Your task to perform on an android device: turn pop-ups on in chrome Image 0: 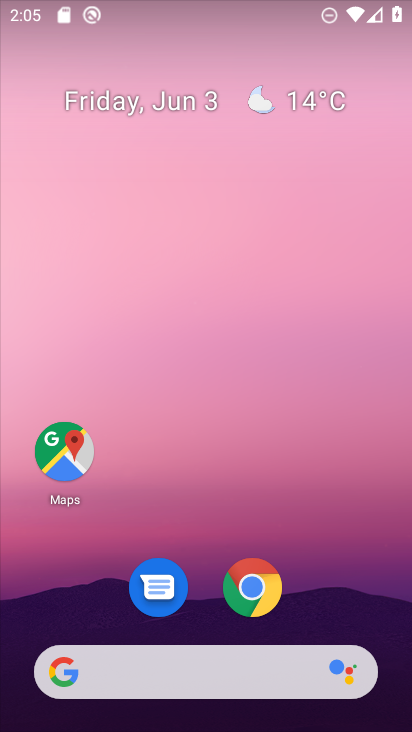
Step 0: click (247, 595)
Your task to perform on an android device: turn pop-ups on in chrome Image 1: 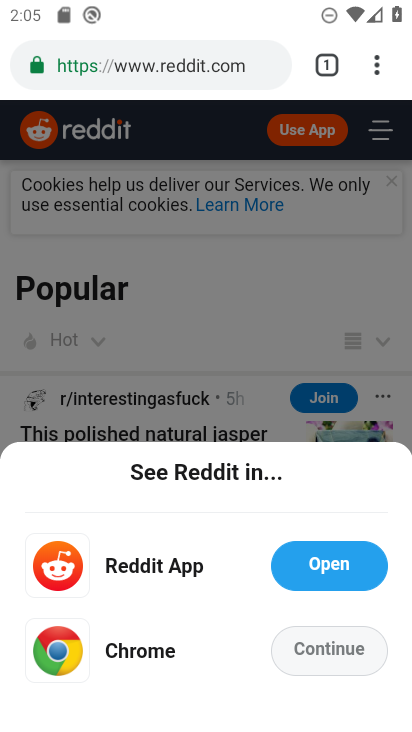
Step 1: click (386, 71)
Your task to perform on an android device: turn pop-ups on in chrome Image 2: 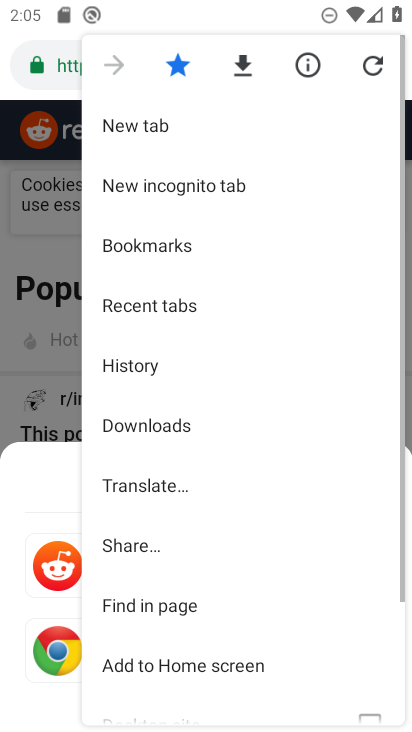
Step 2: drag from (250, 645) to (319, 103)
Your task to perform on an android device: turn pop-ups on in chrome Image 3: 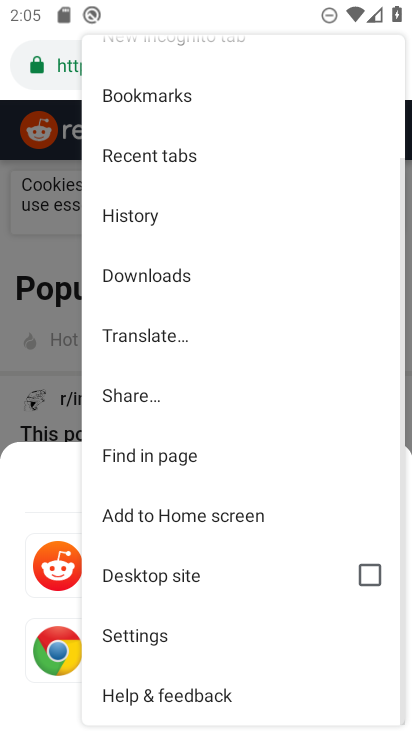
Step 3: click (211, 630)
Your task to perform on an android device: turn pop-ups on in chrome Image 4: 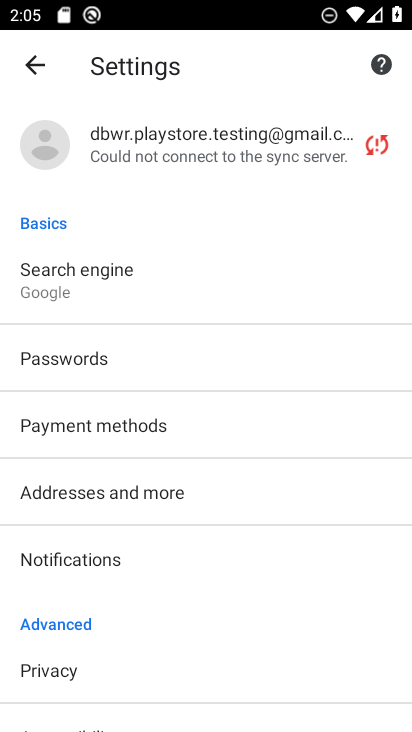
Step 4: drag from (154, 664) to (188, 182)
Your task to perform on an android device: turn pop-ups on in chrome Image 5: 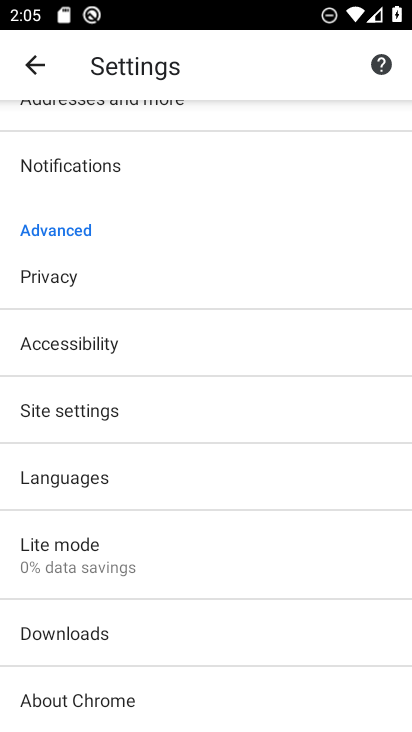
Step 5: click (98, 404)
Your task to perform on an android device: turn pop-ups on in chrome Image 6: 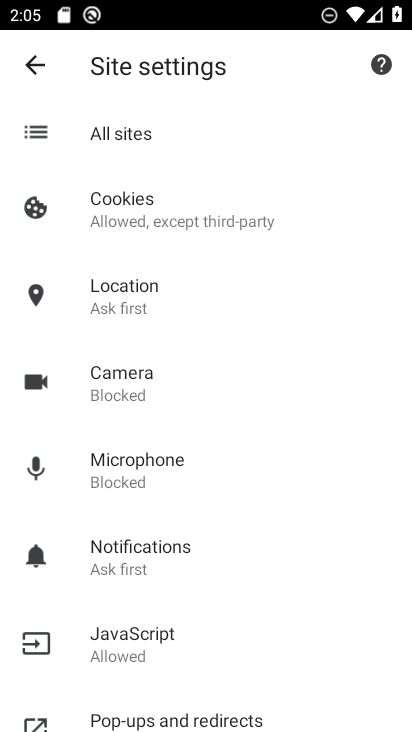
Step 6: drag from (151, 621) to (193, 285)
Your task to perform on an android device: turn pop-ups on in chrome Image 7: 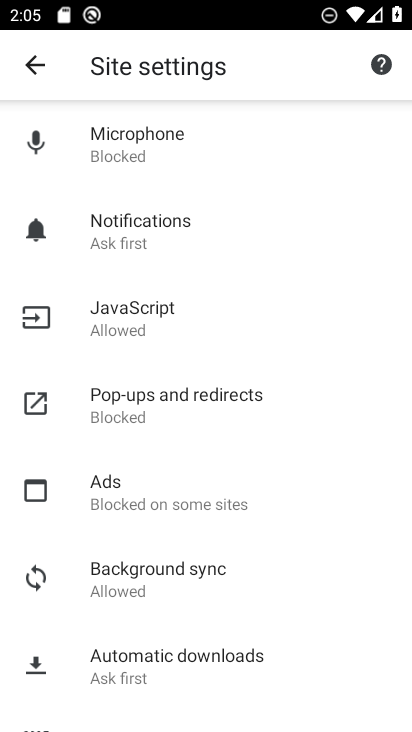
Step 7: click (148, 413)
Your task to perform on an android device: turn pop-ups on in chrome Image 8: 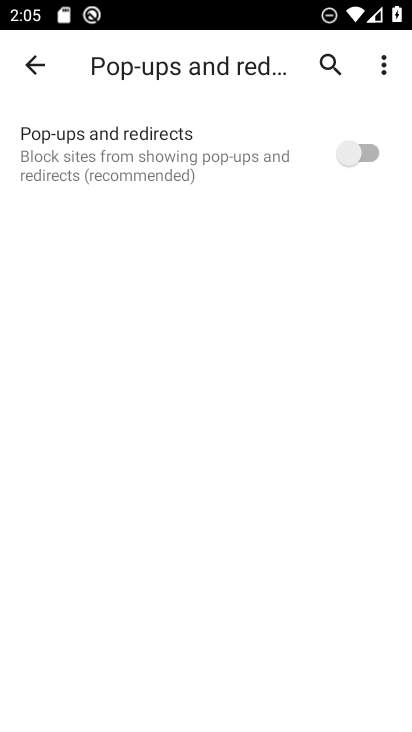
Step 8: click (368, 153)
Your task to perform on an android device: turn pop-ups on in chrome Image 9: 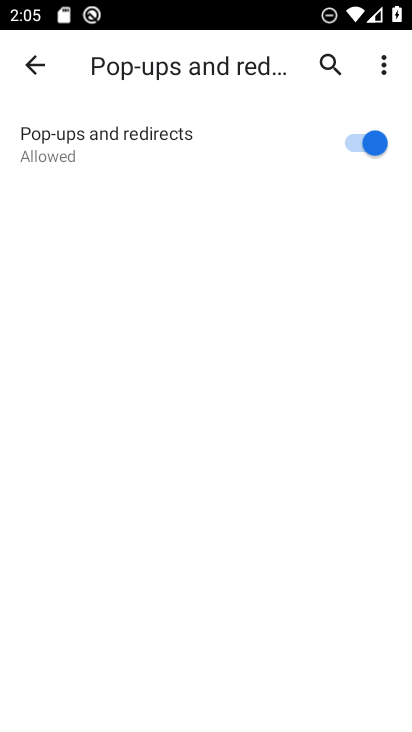
Step 9: task complete